Your task to perform on an android device: install app "Pinterest" Image 0: 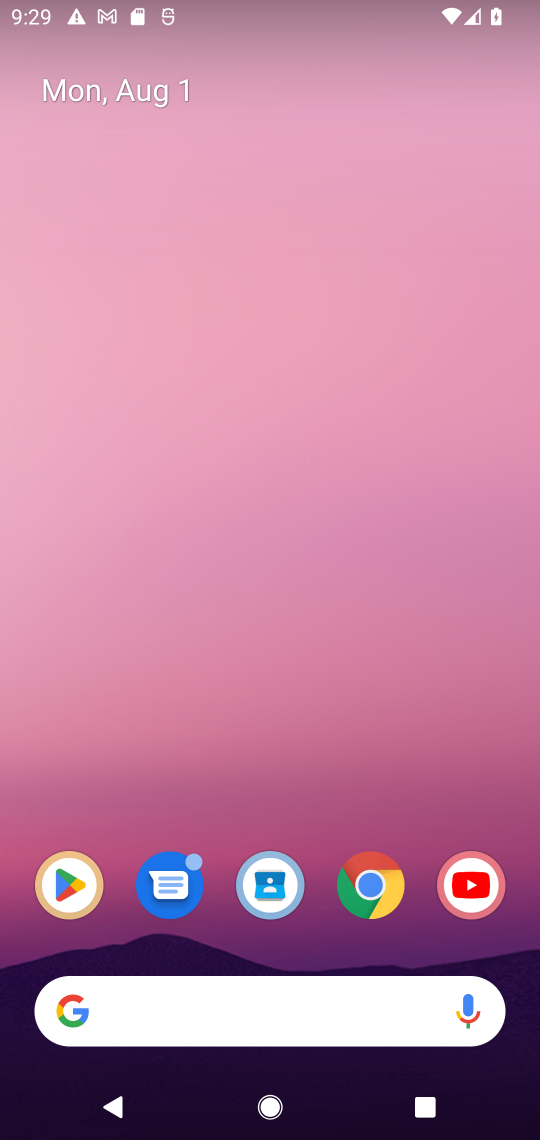
Step 0: drag from (309, 1132) to (310, 293)
Your task to perform on an android device: install app "Pinterest" Image 1: 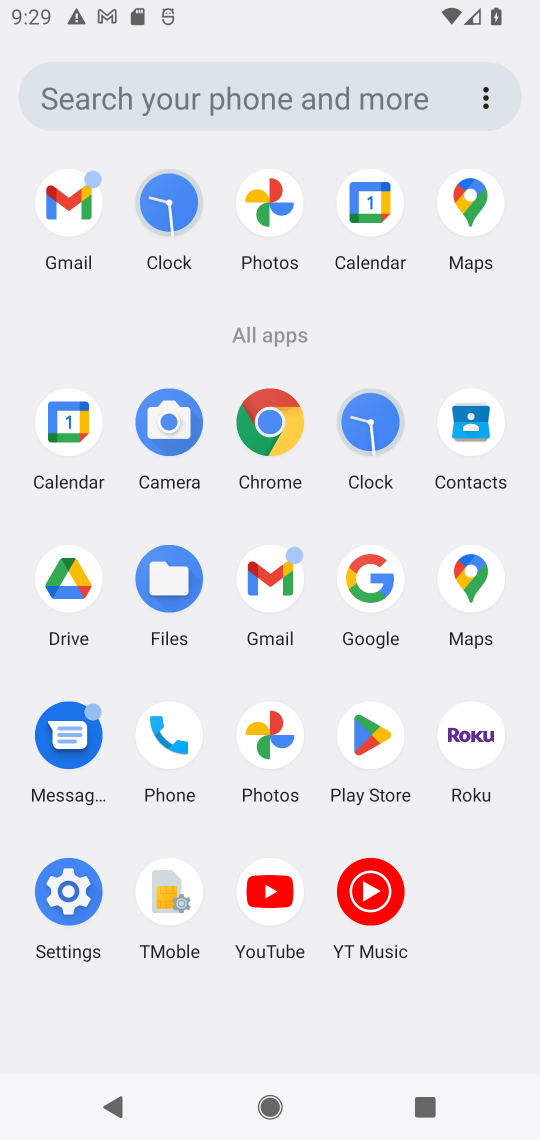
Step 1: click (378, 737)
Your task to perform on an android device: install app "Pinterest" Image 2: 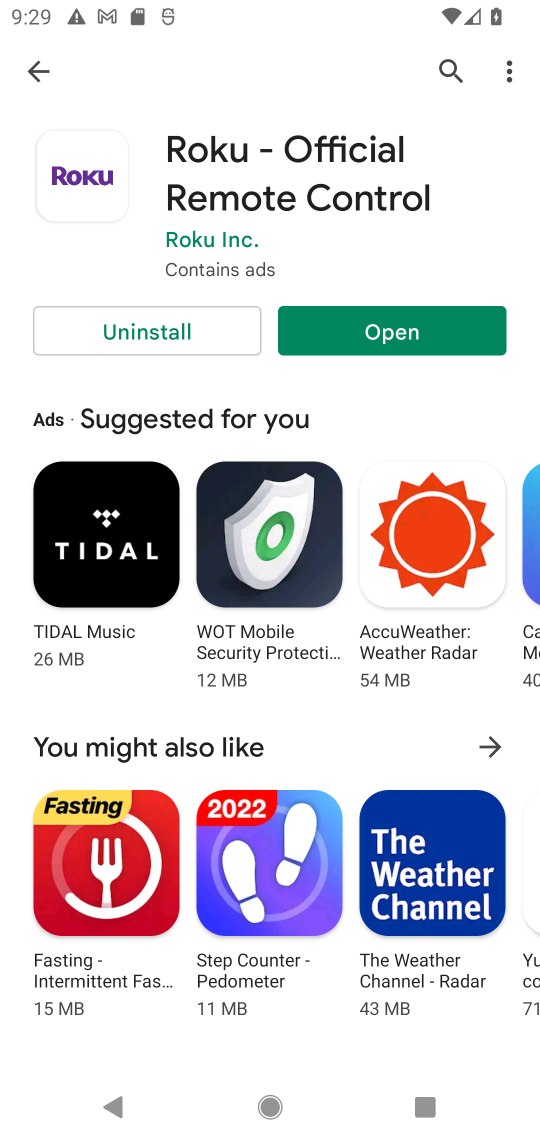
Step 2: click (444, 64)
Your task to perform on an android device: install app "Pinterest" Image 3: 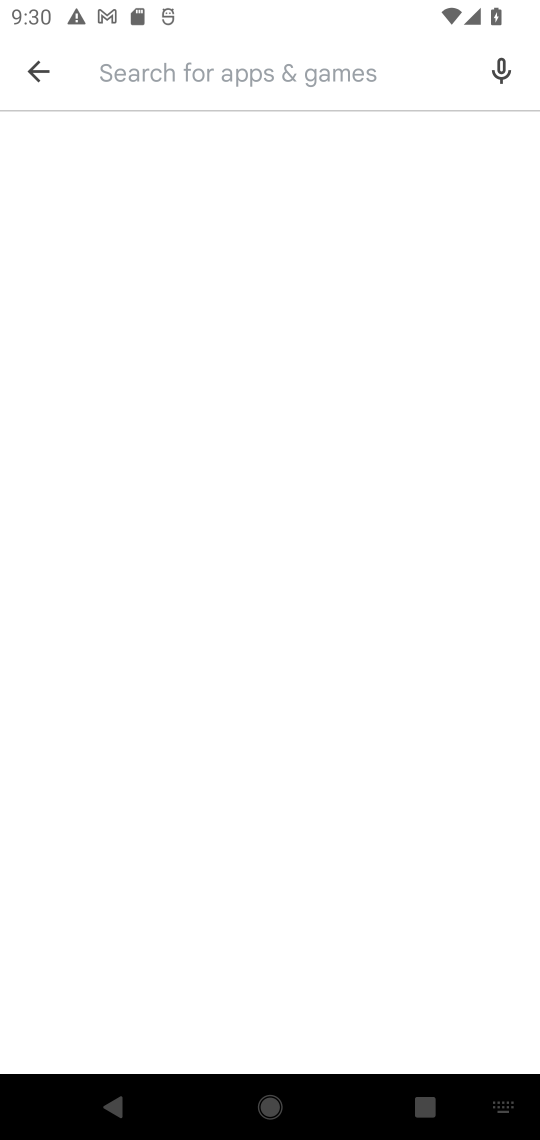
Step 3: type "Pinterest"
Your task to perform on an android device: install app "Pinterest" Image 4: 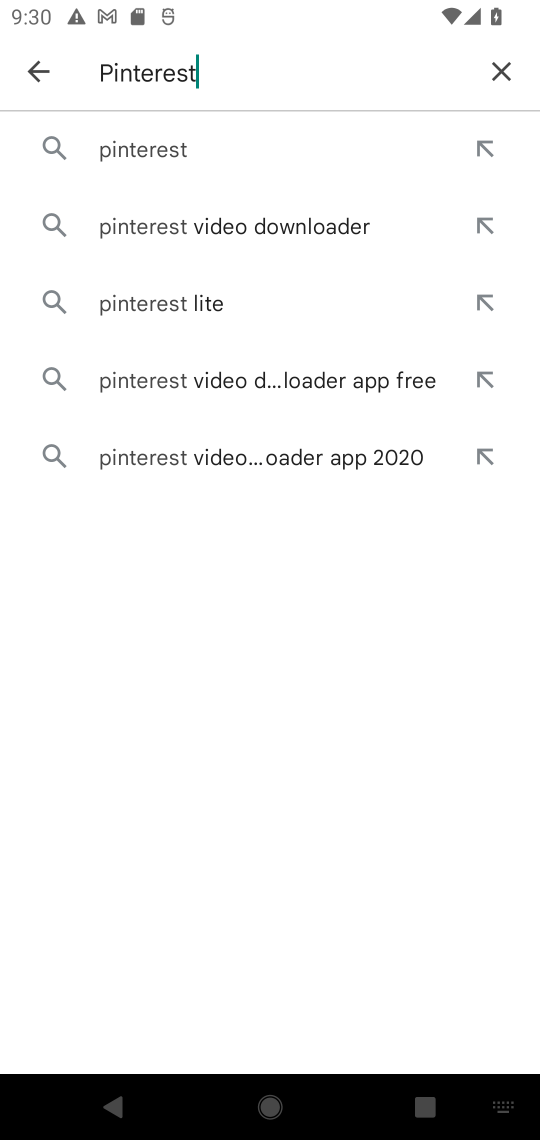
Step 4: click (138, 148)
Your task to perform on an android device: install app "Pinterest" Image 5: 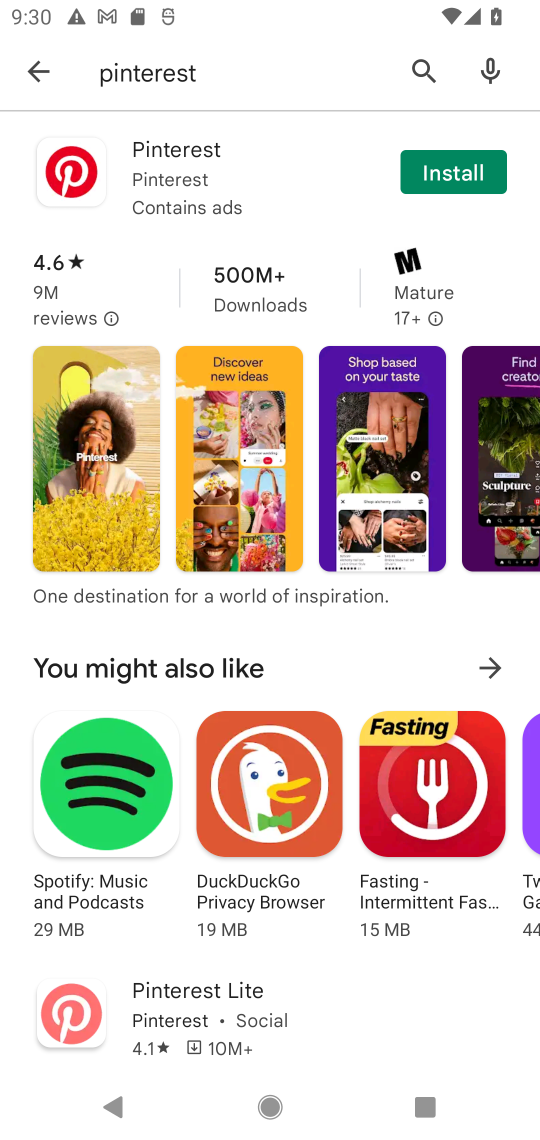
Step 5: click (459, 168)
Your task to perform on an android device: install app "Pinterest" Image 6: 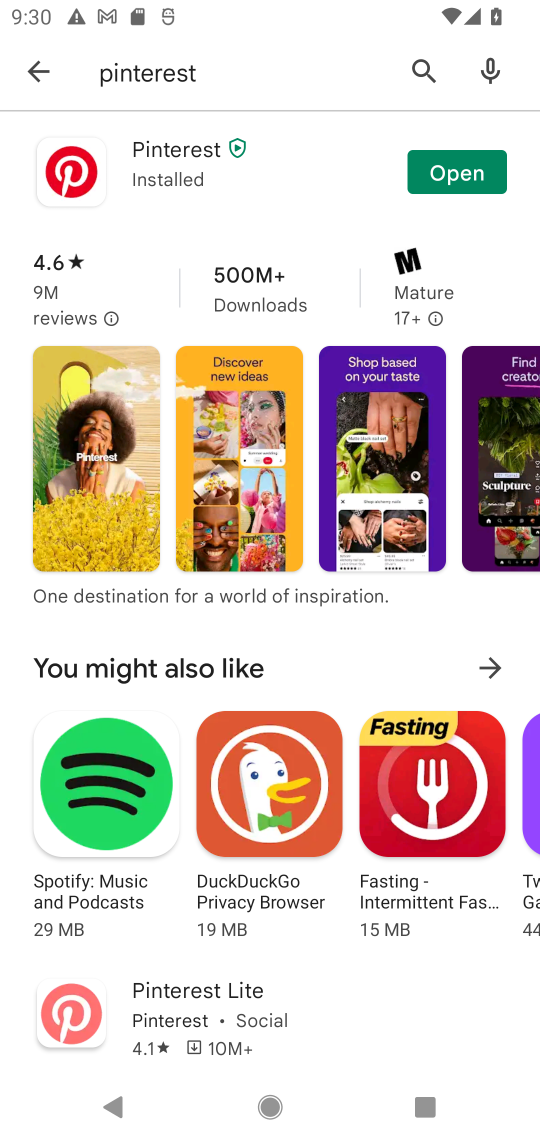
Step 6: task complete